Your task to perform on an android device: Open Chrome and go to settings Image 0: 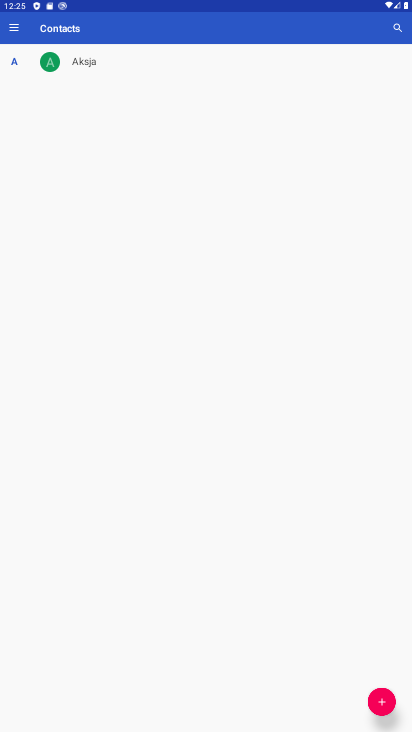
Step 0: press home button
Your task to perform on an android device: Open Chrome and go to settings Image 1: 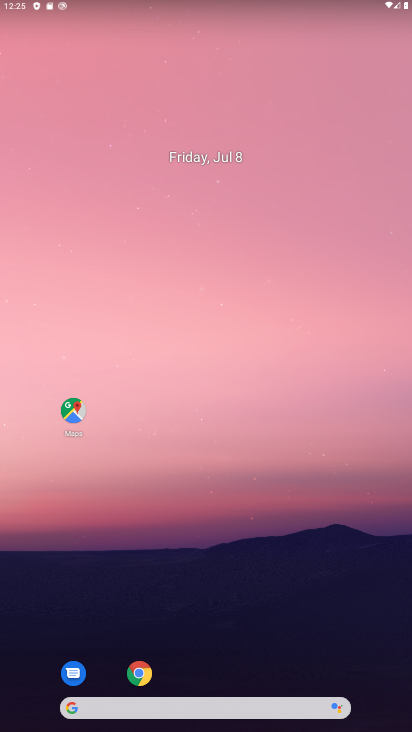
Step 1: click (128, 674)
Your task to perform on an android device: Open Chrome and go to settings Image 2: 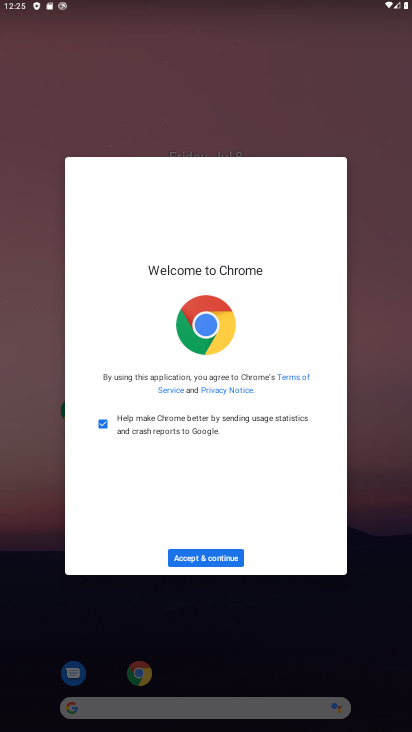
Step 2: click (231, 559)
Your task to perform on an android device: Open Chrome and go to settings Image 3: 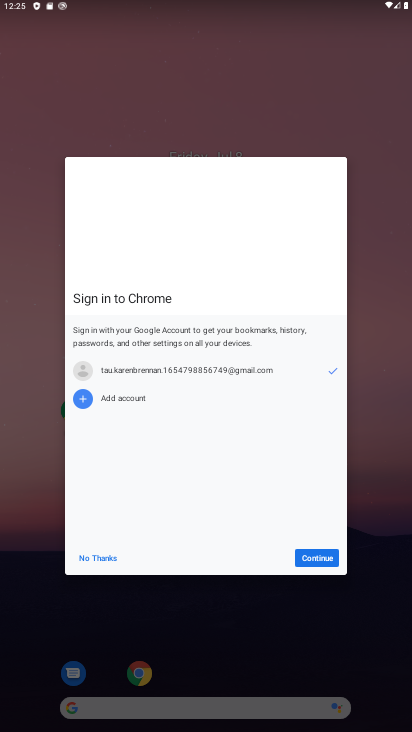
Step 3: click (328, 563)
Your task to perform on an android device: Open Chrome and go to settings Image 4: 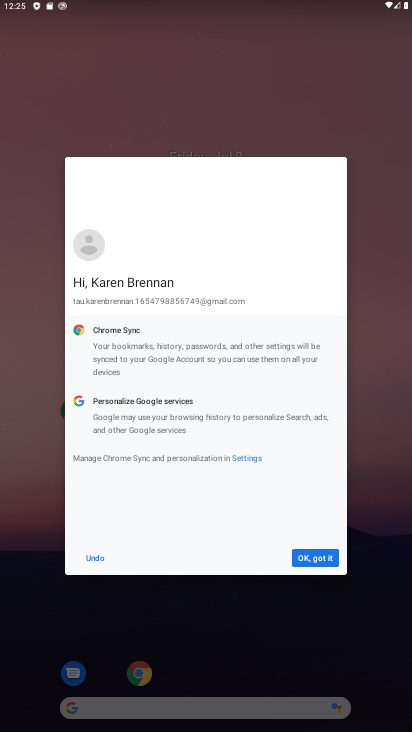
Step 4: click (328, 563)
Your task to perform on an android device: Open Chrome and go to settings Image 5: 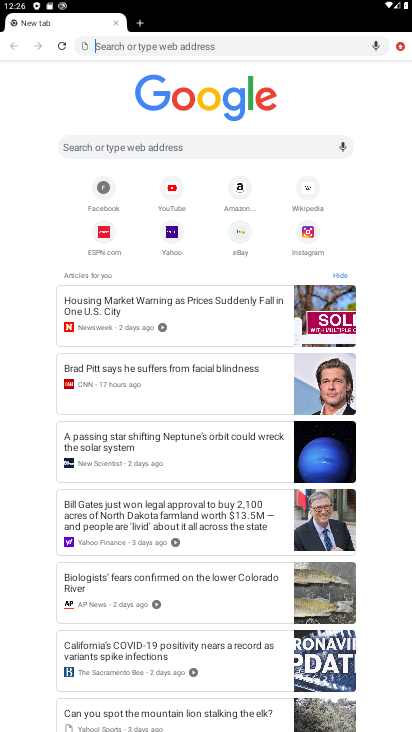
Step 5: task complete